Your task to perform on an android device: search for starred emails in the gmail app Image 0: 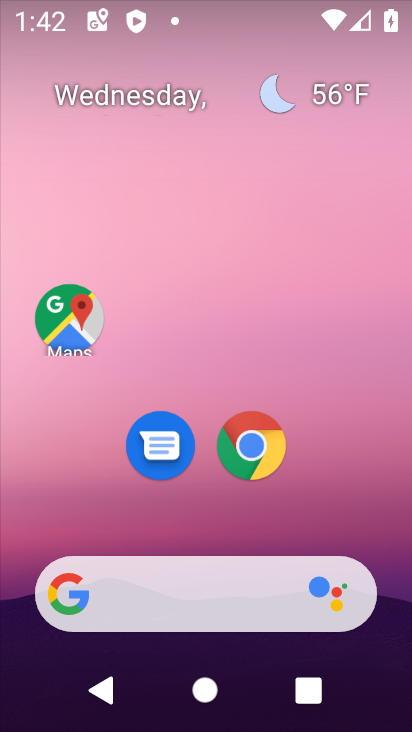
Step 0: drag from (246, 534) to (180, 111)
Your task to perform on an android device: search for starred emails in the gmail app Image 1: 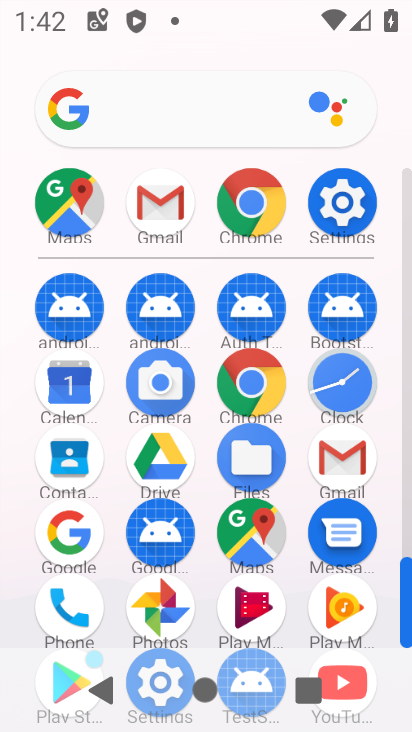
Step 1: click (345, 443)
Your task to perform on an android device: search for starred emails in the gmail app Image 2: 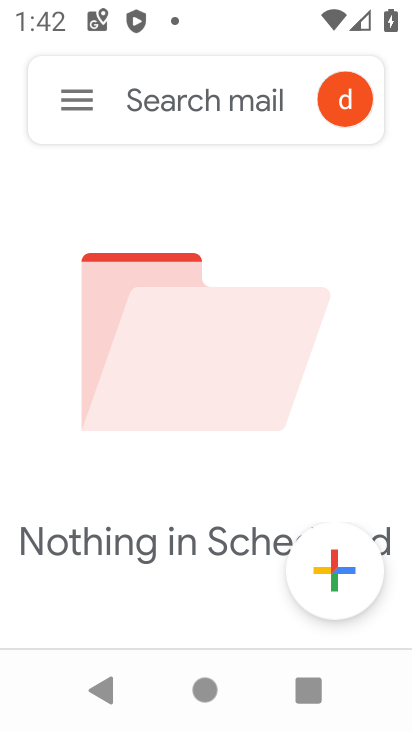
Step 2: click (67, 100)
Your task to perform on an android device: search for starred emails in the gmail app Image 3: 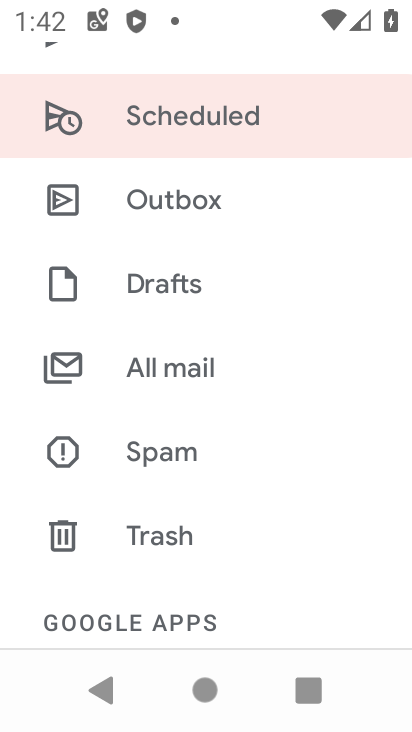
Step 3: drag from (150, 284) to (109, 635)
Your task to perform on an android device: search for starred emails in the gmail app Image 4: 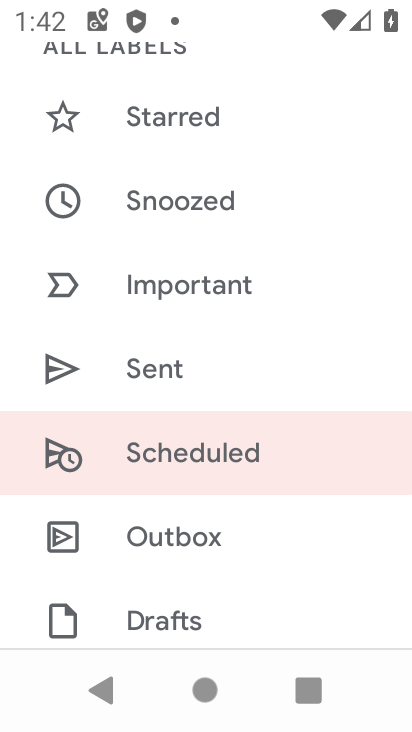
Step 4: click (172, 116)
Your task to perform on an android device: search for starred emails in the gmail app Image 5: 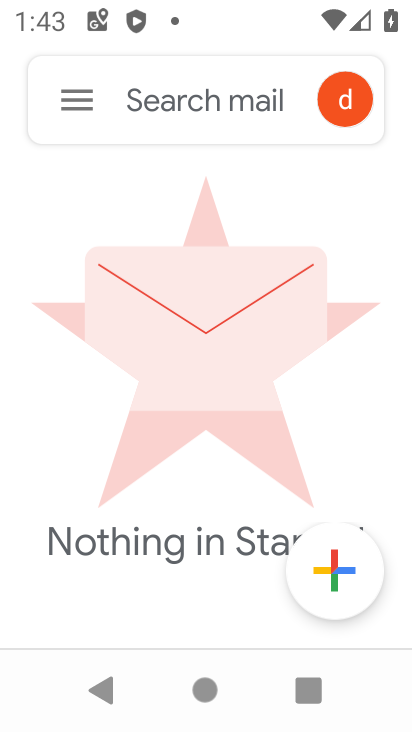
Step 5: task complete